Your task to perform on an android device: Go to location settings Image 0: 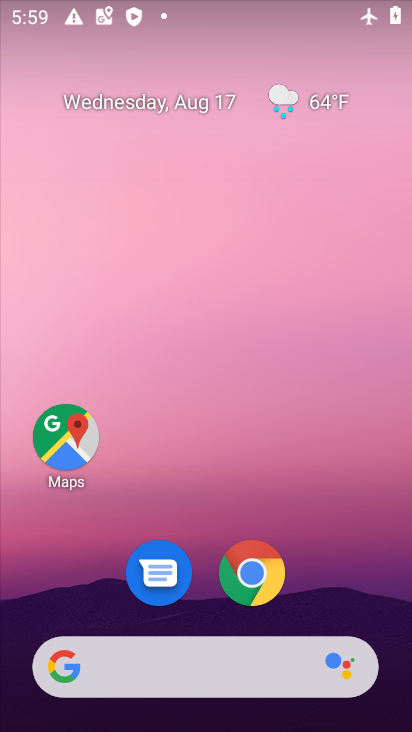
Step 0: drag from (319, 622) to (187, 50)
Your task to perform on an android device: Go to location settings Image 1: 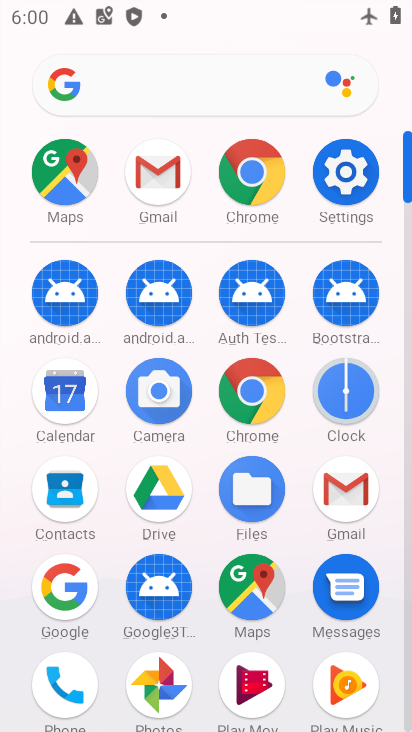
Step 1: click (333, 166)
Your task to perform on an android device: Go to location settings Image 2: 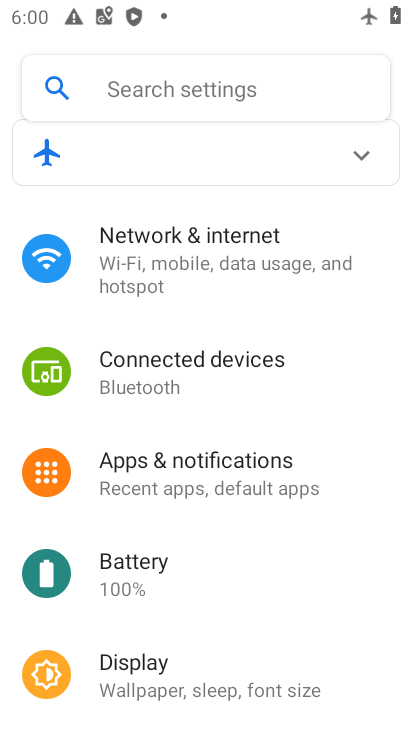
Step 2: drag from (159, 548) to (99, 140)
Your task to perform on an android device: Go to location settings Image 3: 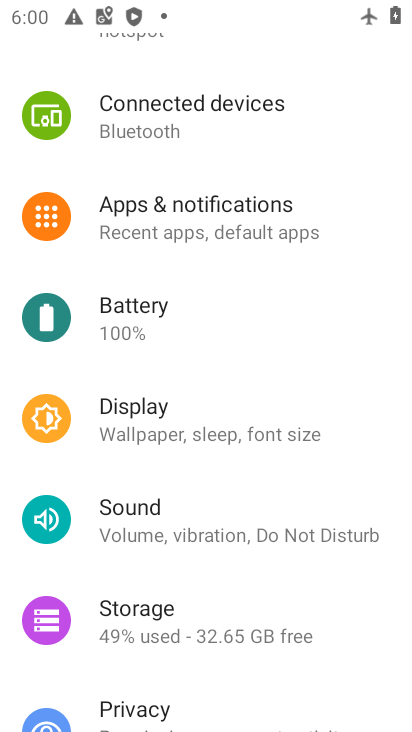
Step 3: drag from (132, 521) to (233, 277)
Your task to perform on an android device: Go to location settings Image 4: 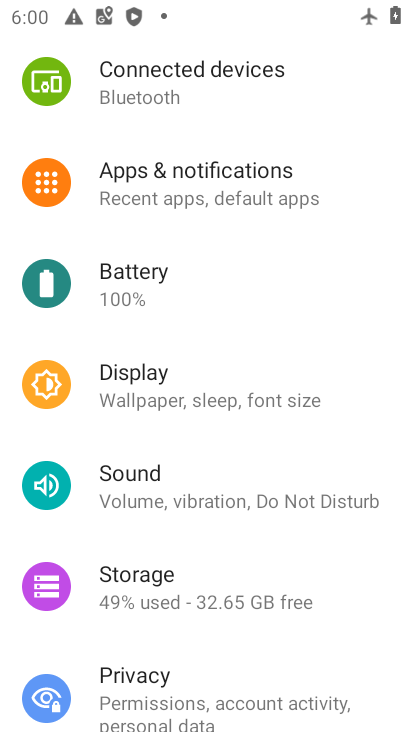
Step 4: drag from (162, 580) to (270, 163)
Your task to perform on an android device: Go to location settings Image 5: 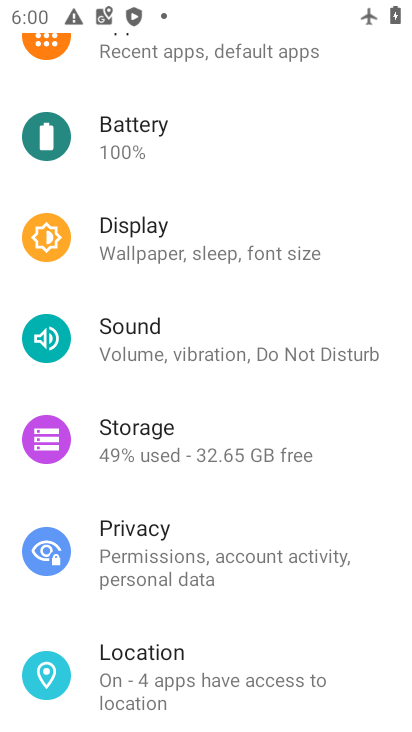
Step 5: click (149, 640)
Your task to perform on an android device: Go to location settings Image 6: 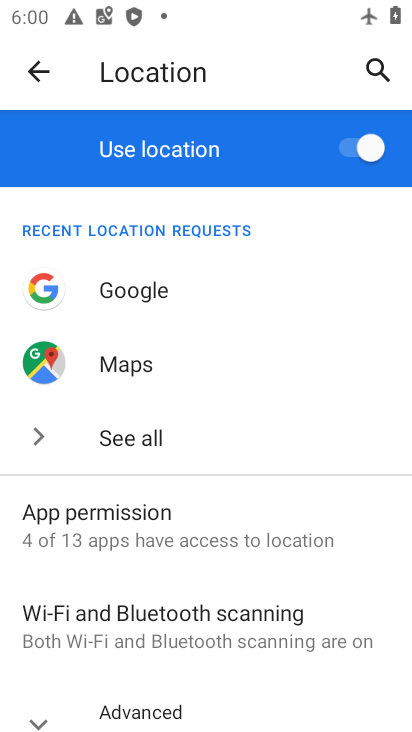
Step 6: task complete